Your task to perform on an android device: What's the weather going to be tomorrow? Image 0: 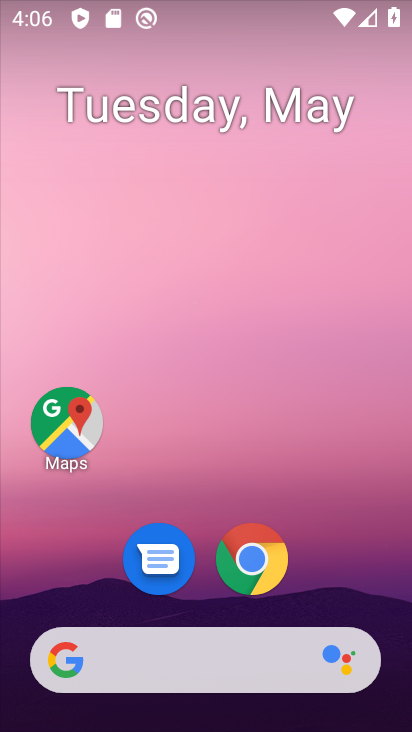
Step 0: drag from (18, 268) to (411, 219)
Your task to perform on an android device: What's the weather going to be tomorrow? Image 1: 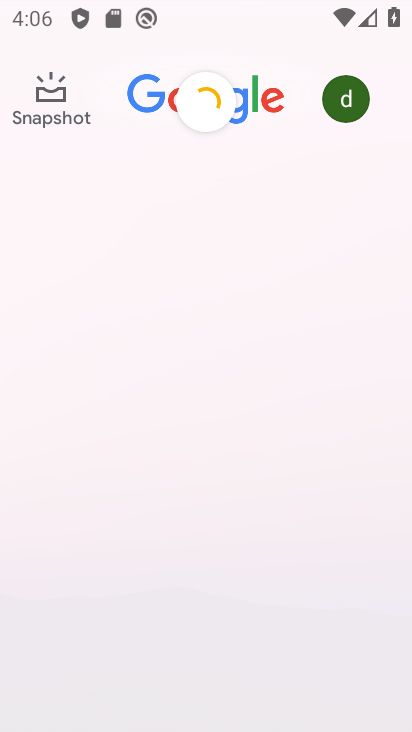
Step 1: drag from (273, 609) to (257, 520)
Your task to perform on an android device: What's the weather going to be tomorrow? Image 2: 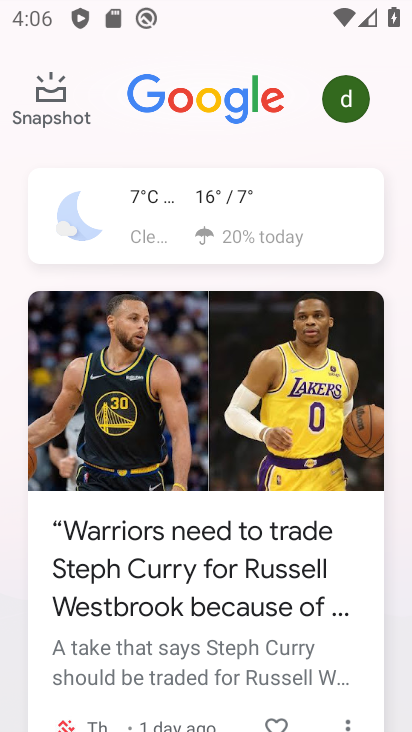
Step 2: click (200, 214)
Your task to perform on an android device: What's the weather going to be tomorrow? Image 3: 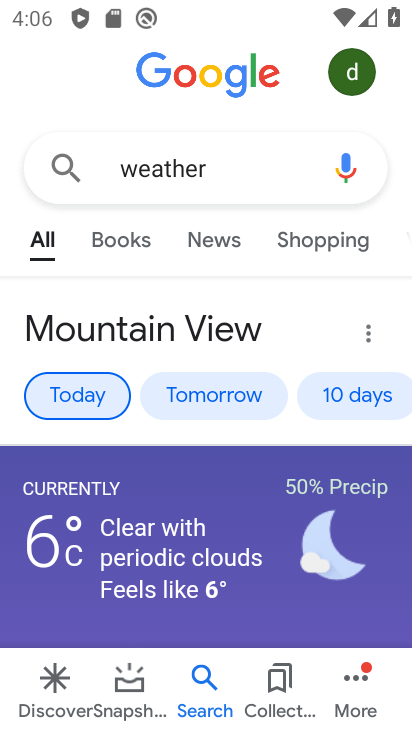
Step 3: click (225, 384)
Your task to perform on an android device: What's the weather going to be tomorrow? Image 4: 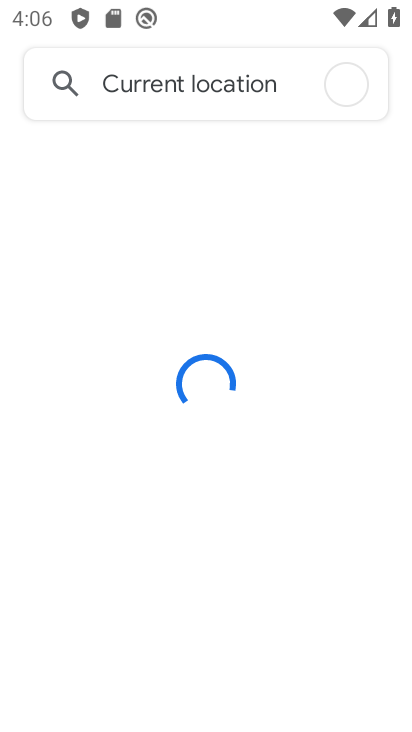
Step 4: click (229, 173)
Your task to perform on an android device: What's the weather going to be tomorrow? Image 5: 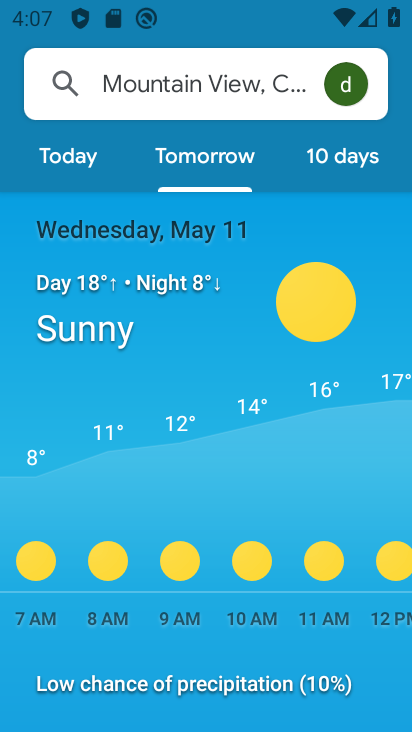
Step 5: task complete